Your task to perform on an android device: turn on improve location accuracy Image 0: 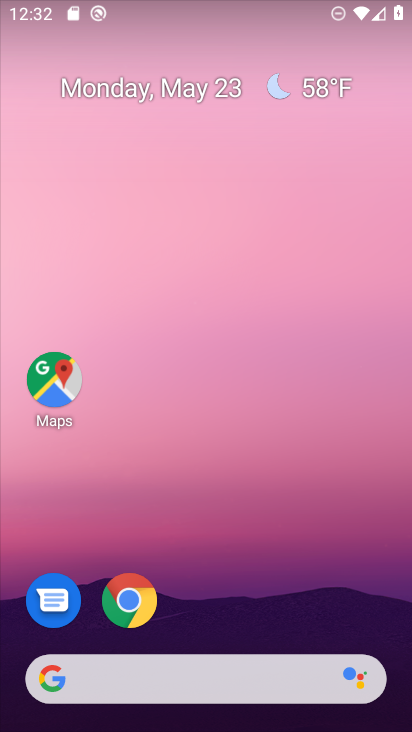
Step 0: drag from (293, 534) to (259, 33)
Your task to perform on an android device: turn on improve location accuracy Image 1: 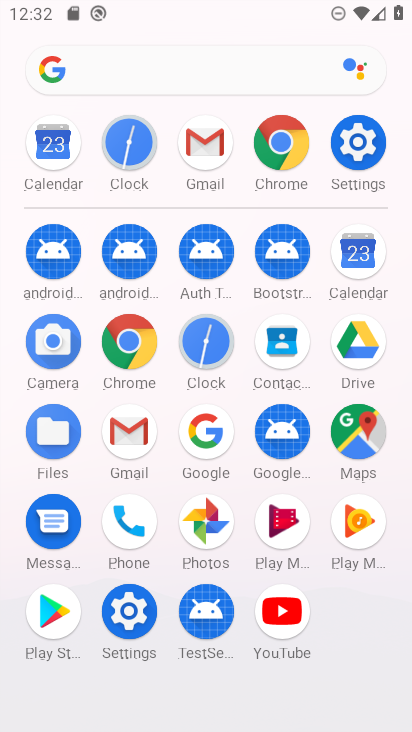
Step 1: click (377, 138)
Your task to perform on an android device: turn on improve location accuracy Image 2: 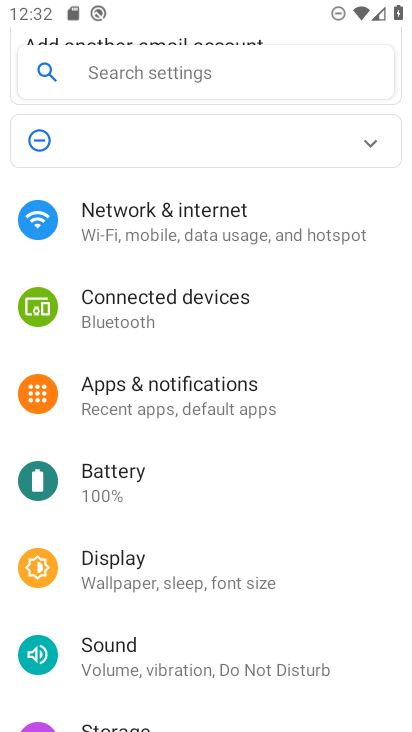
Step 2: drag from (190, 608) to (239, 157)
Your task to perform on an android device: turn on improve location accuracy Image 3: 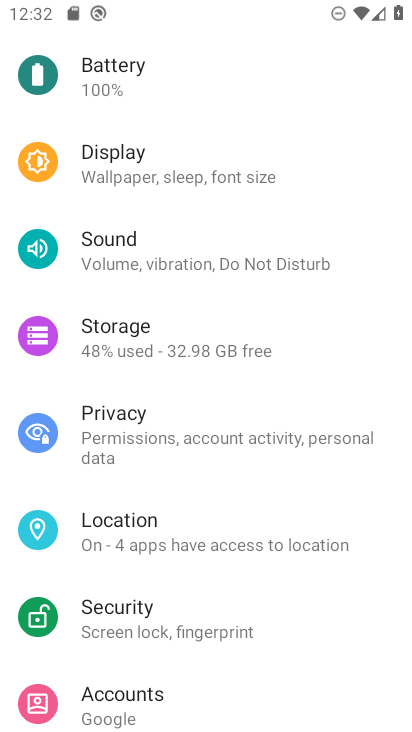
Step 3: click (174, 526)
Your task to perform on an android device: turn on improve location accuracy Image 4: 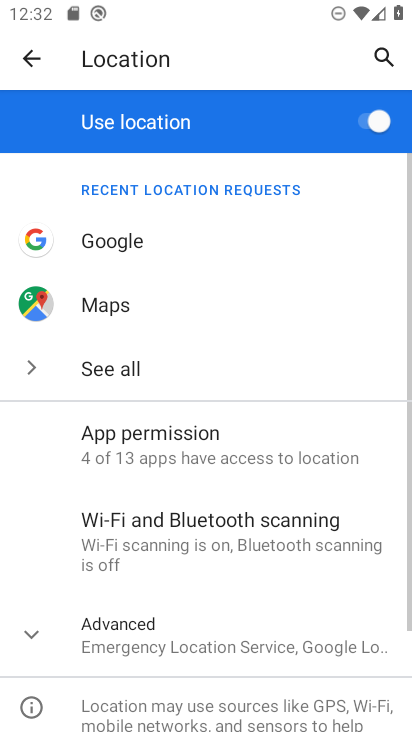
Step 4: drag from (227, 629) to (330, 227)
Your task to perform on an android device: turn on improve location accuracy Image 5: 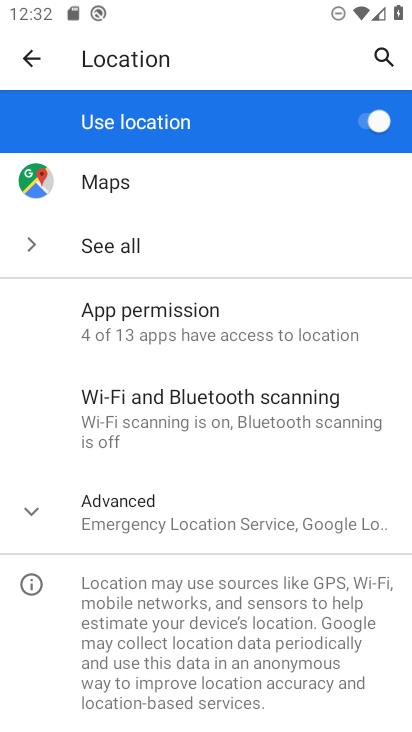
Step 5: click (173, 513)
Your task to perform on an android device: turn on improve location accuracy Image 6: 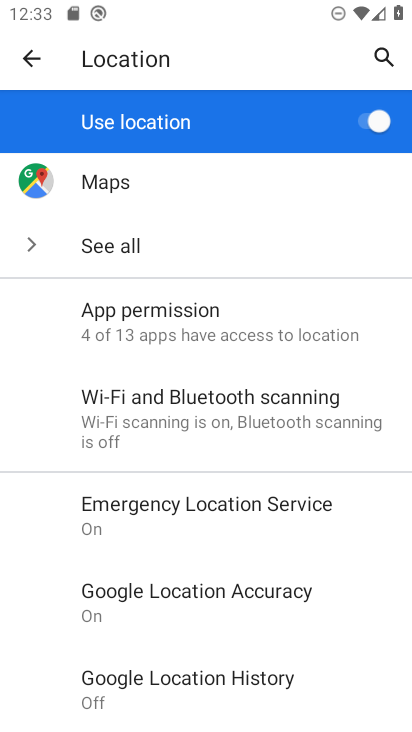
Step 6: click (186, 586)
Your task to perform on an android device: turn on improve location accuracy Image 7: 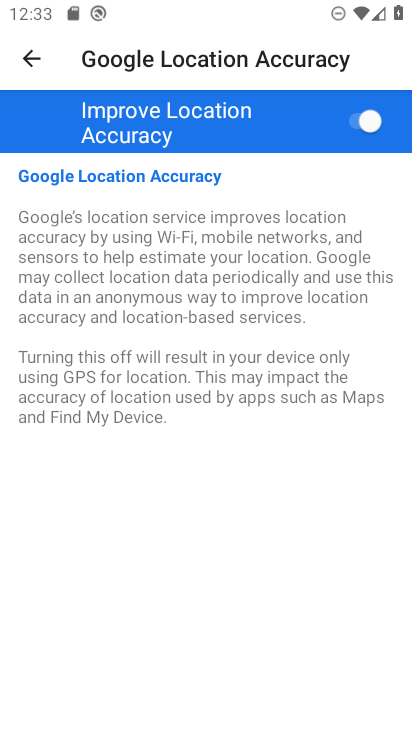
Step 7: task complete